Your task to perform on an android device: turn off translation in the chrome app Image 0: 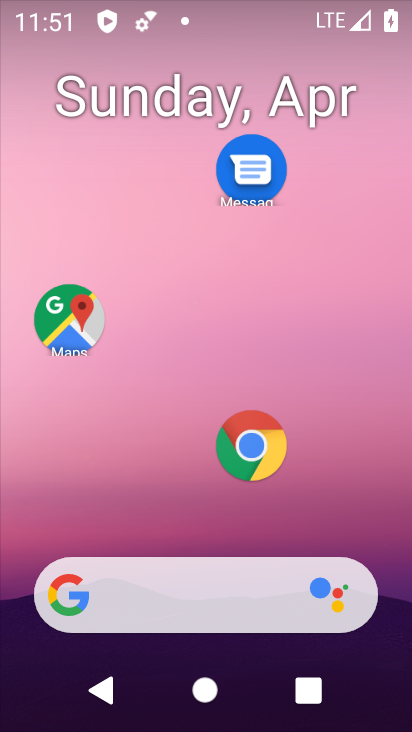
Step 0: press home button
Your task to perform on an android device: turn off translation in the chrome app Image 1: 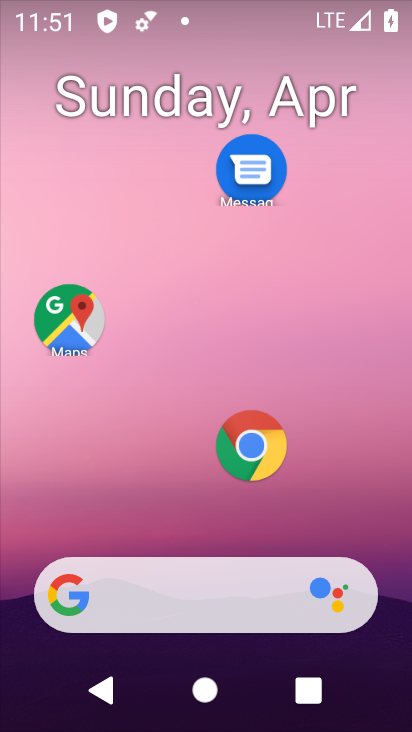
Step 1: drag from (143, 605) to (245, 195)
Your task to perform on an android device: turn off translation in the chrome app Image 2: 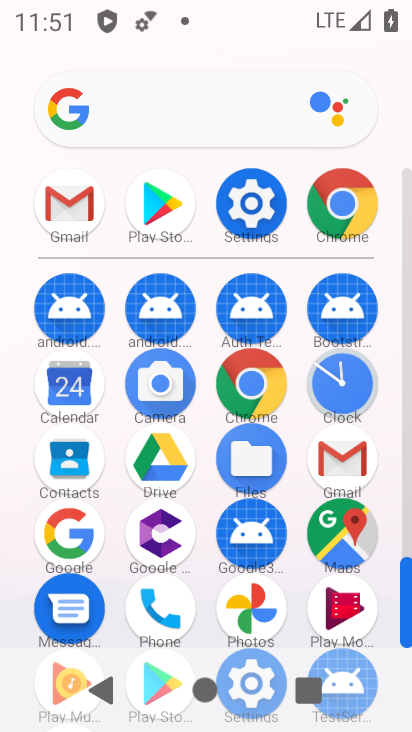
Step 2: click (339, 214)
Your task to perform on an android device: turn off translation in the chrome app Image 3: 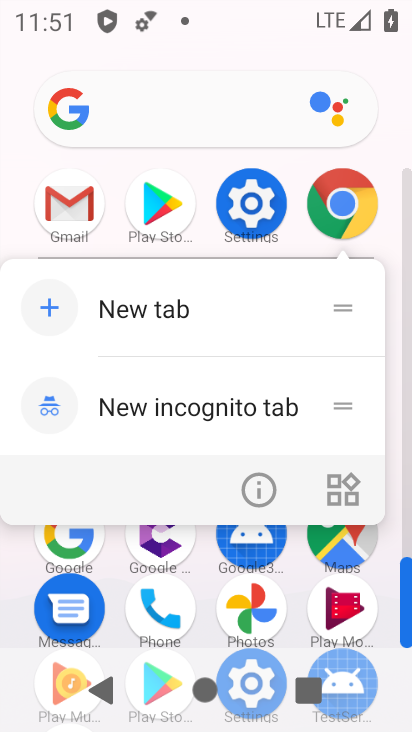
Step 3: click (347, 207)
Your task to perform on an android device: turn off translation in the chrome app Image 4: 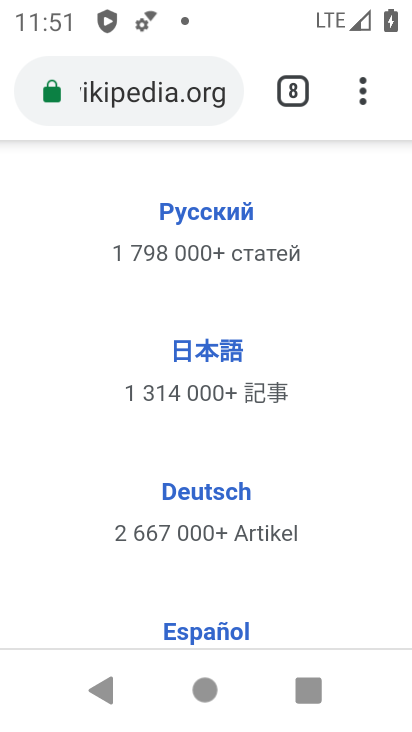
Step 4: drag from (360, 97) to (145, 472)
Your task to perform on an android device: turn off translation in the chrome app Image 5: 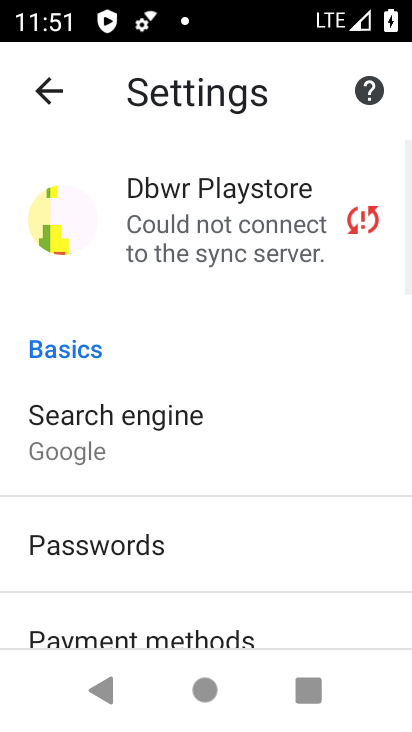
Step 5: drag from (128, 581) to (328, 173)
Your task to perform on an android device: turn off translation in the chrome app Image 6: 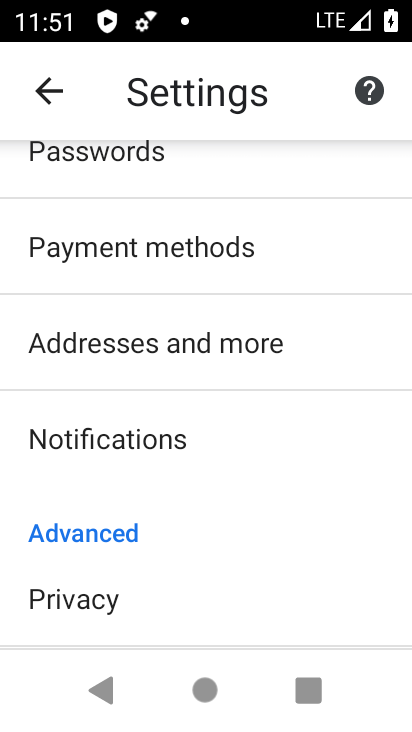
Step 6: drag from (167, 599) to (278, 189)
Your task to perform on an android device: turn off translation in the chrome app Image 7: 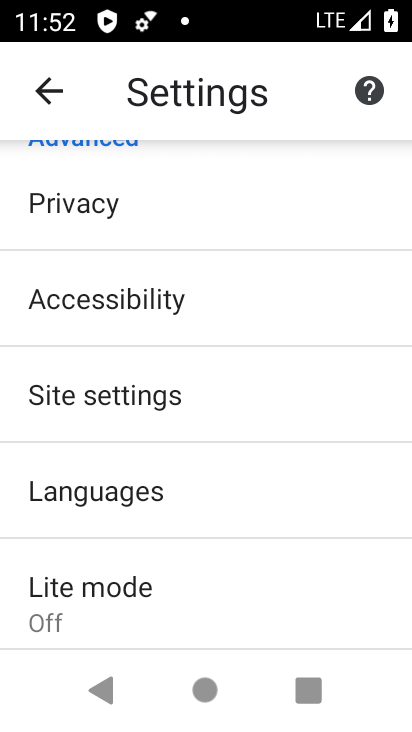
Step 7: click (125, 494)
Your task to perform on an android device: turn off translation in the chrome app Image 8: 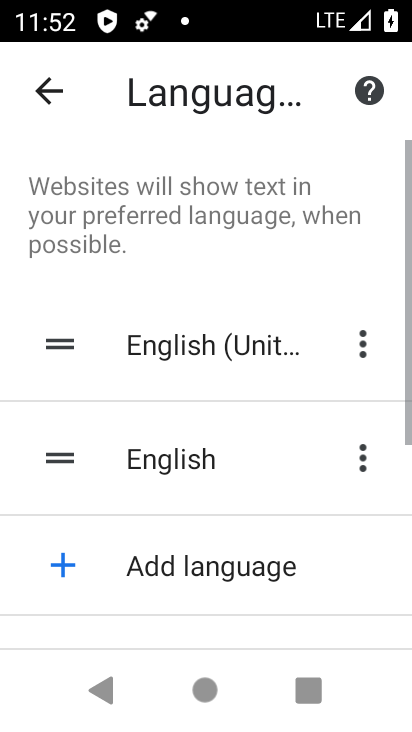
Step 8: drag from (234, 560) to (311, 225)
Your task to perform on an android device: turn off translation in the chrome app Image 9: 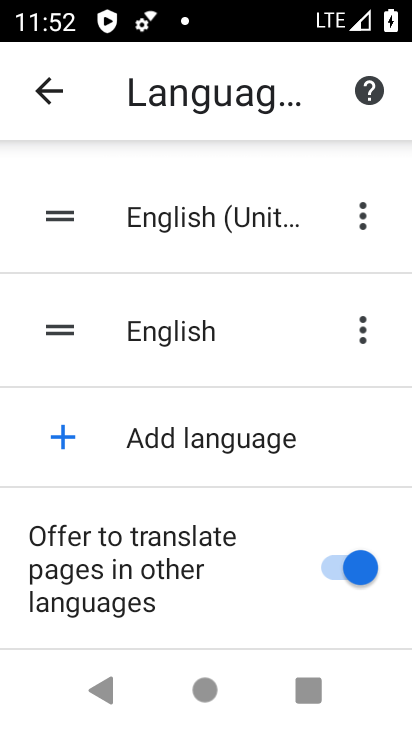
Step 9: click (335, 566)
Your task to perform on an android device: turn off translation in the chrome app Image 10: 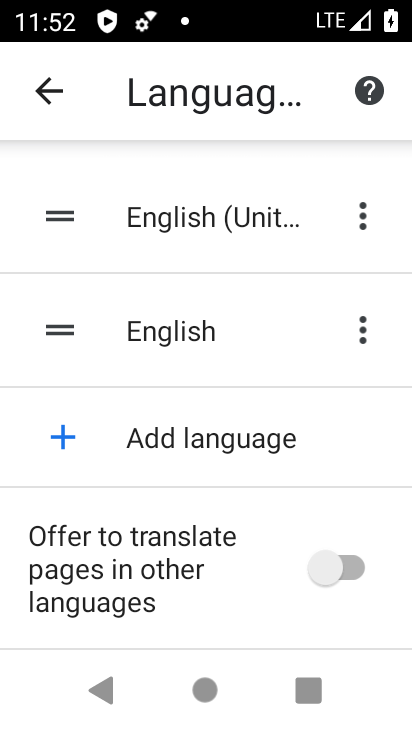
Step 10: task complete